Your task to perform on an android device: see tabs open on other devices in the chrome app Image 0: 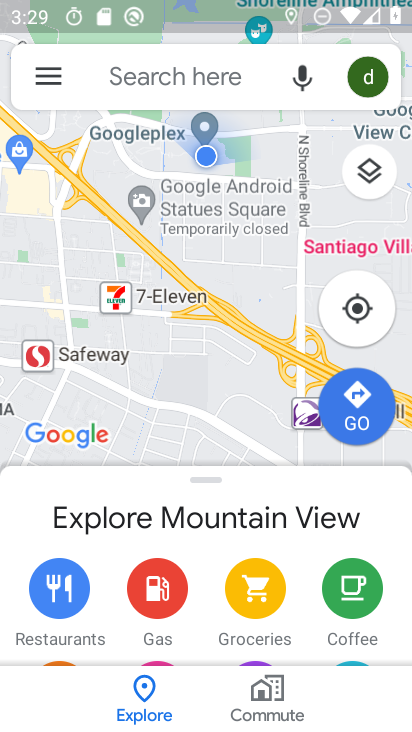
Step 0: press home button
Your task to perform on an android device: see tabs open on other devices in the chrome app Image 1: 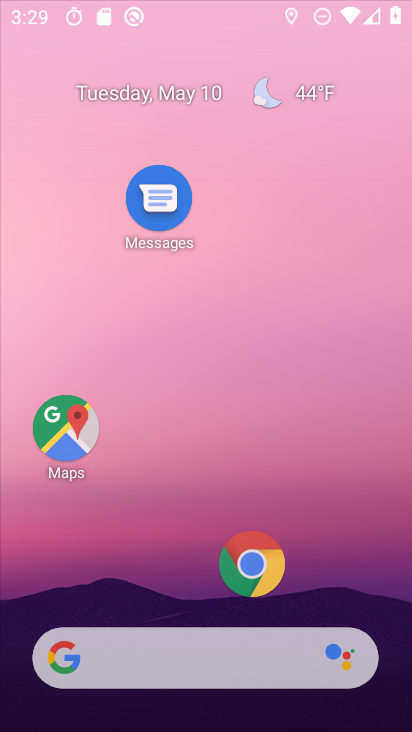
Step 1: press home button
Your task to perform on an android device: see tabs open on other devices in the chrome app Image 2: 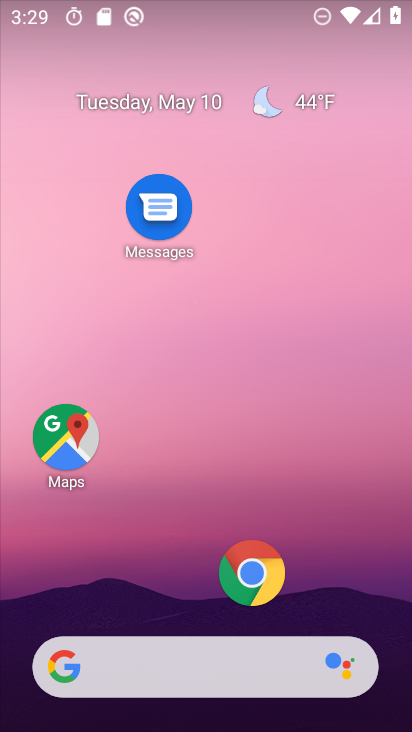
Step 2: click (243, 580)
Your task to perform on an android device: see tabs open on other devices in the chrome app Image 3: 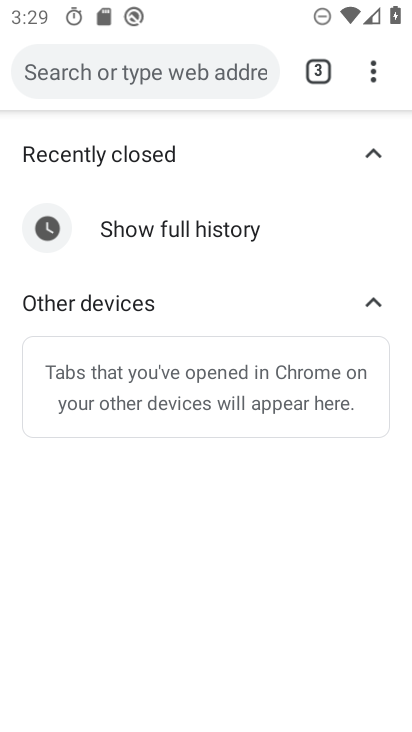
Step 3: click (365, 80)
Your task to perform on an android device: see tabs open on other devices in the chrome app Image 4: 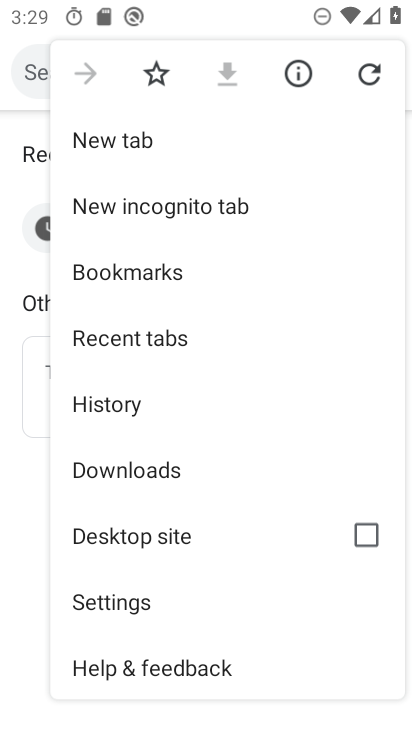
Step 4: click (159, 343)
Your task to perform on an android device: see tabs open on other devices in the chrome app Image 5: 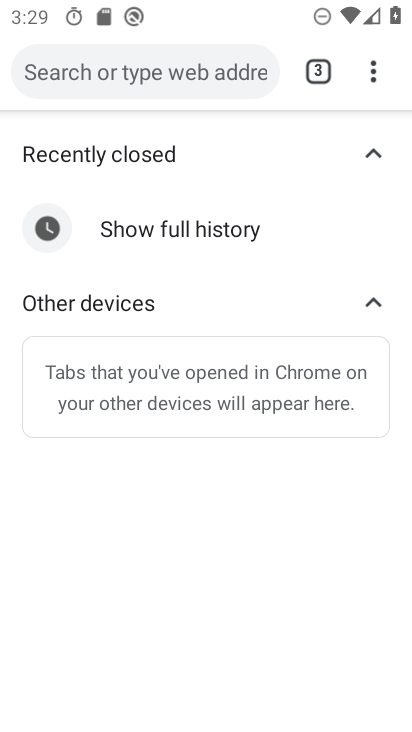
Step 5: task complete